Your task to perform on an android device: open app "PUBG MOBILE" (install if not already installed), go to login, and select forgot password Image 0: 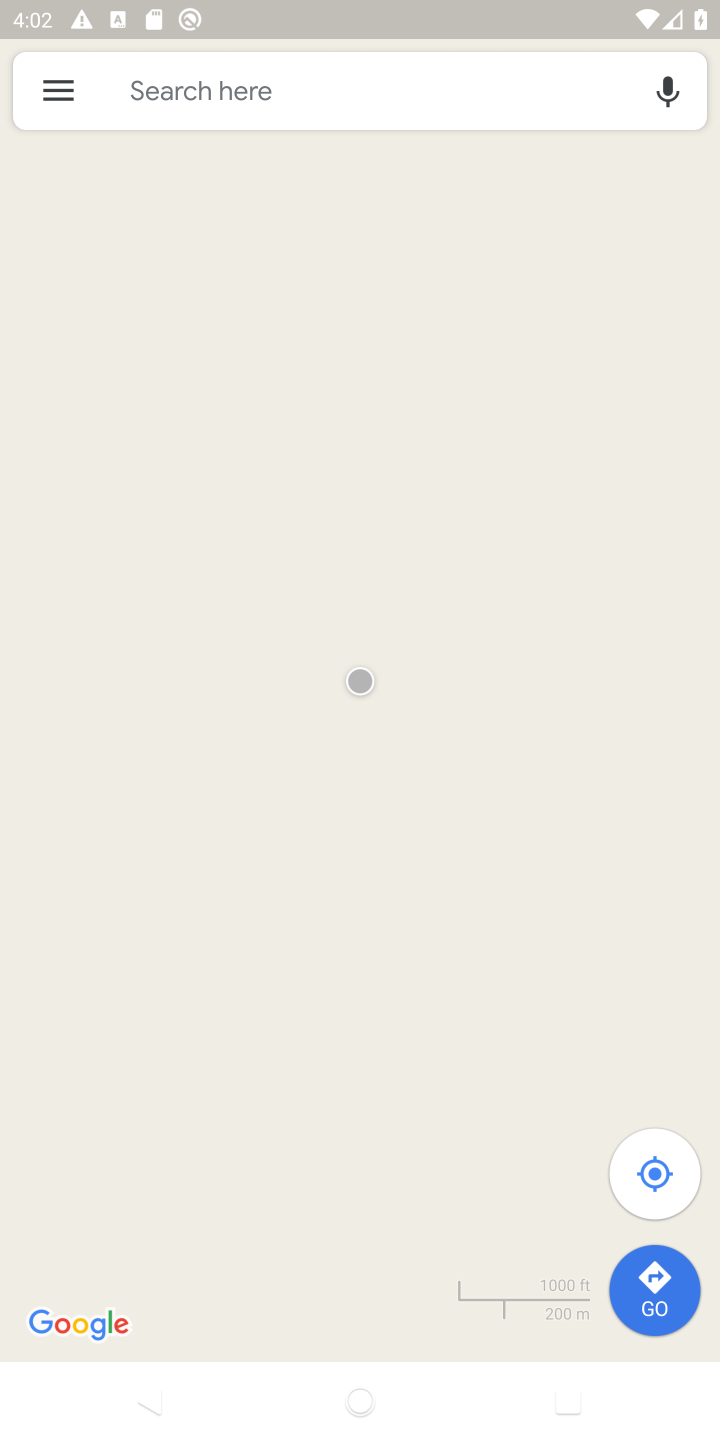
Step 0: press home button
Your task to perform on an android device: open app "PUBG MOBILE" (install if not already installed), go to login, and select forgot password Image 1: 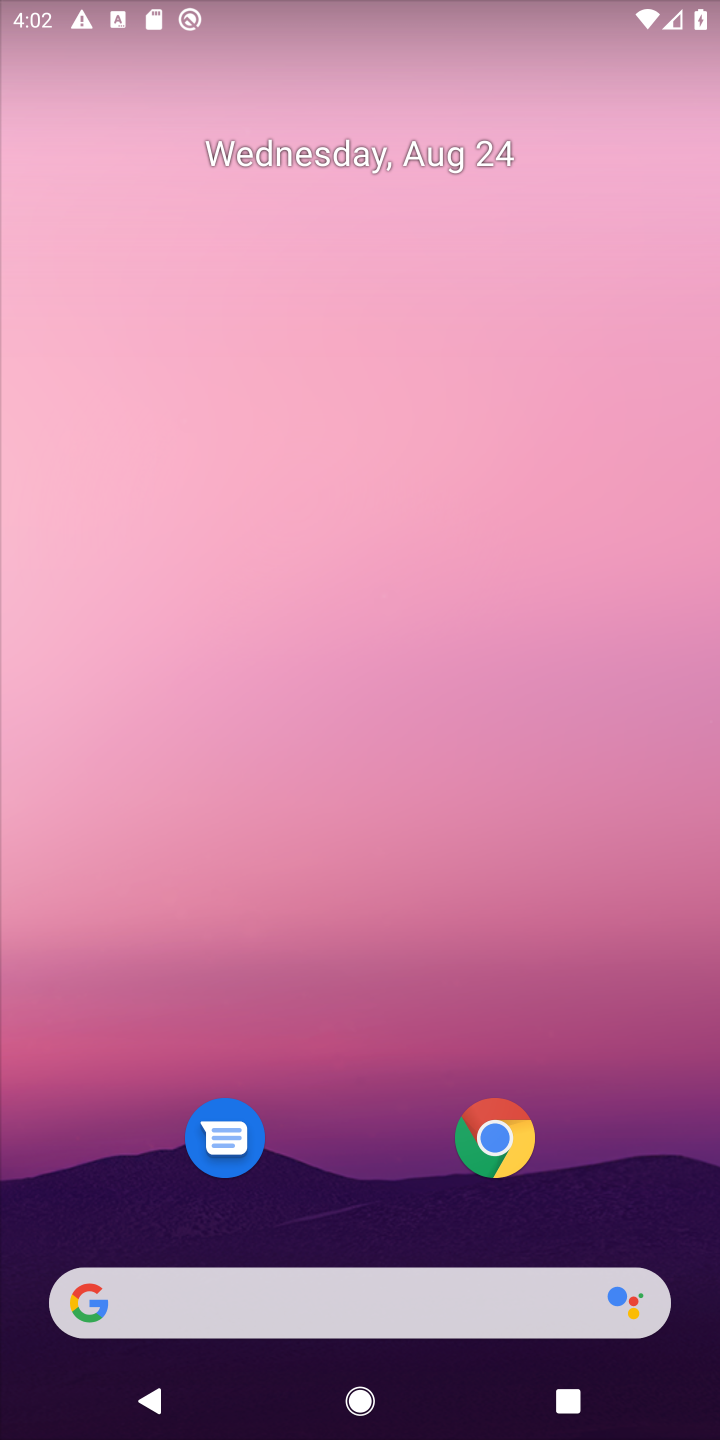
Step 1: drag from (382, 1247) to (315, 150)
Your task to perform on an android device: open app "PUBG MOBILE" (install if not already installed), go to login, and select forgot password Image 2: 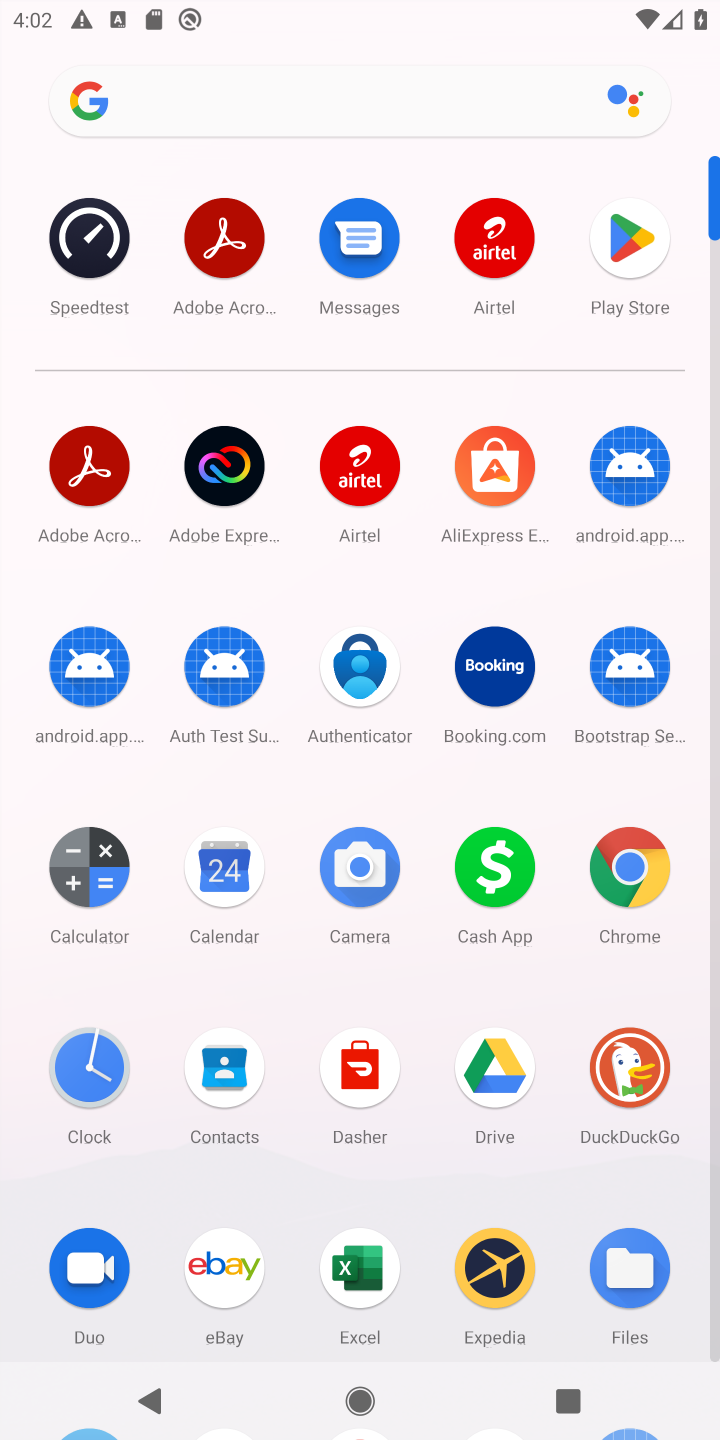
Step 2: click (614, 262)
Your task to perform on an android device: open app "PUBG MOBILE" (install if not already installed), go to login, and select forgot password Image 3: 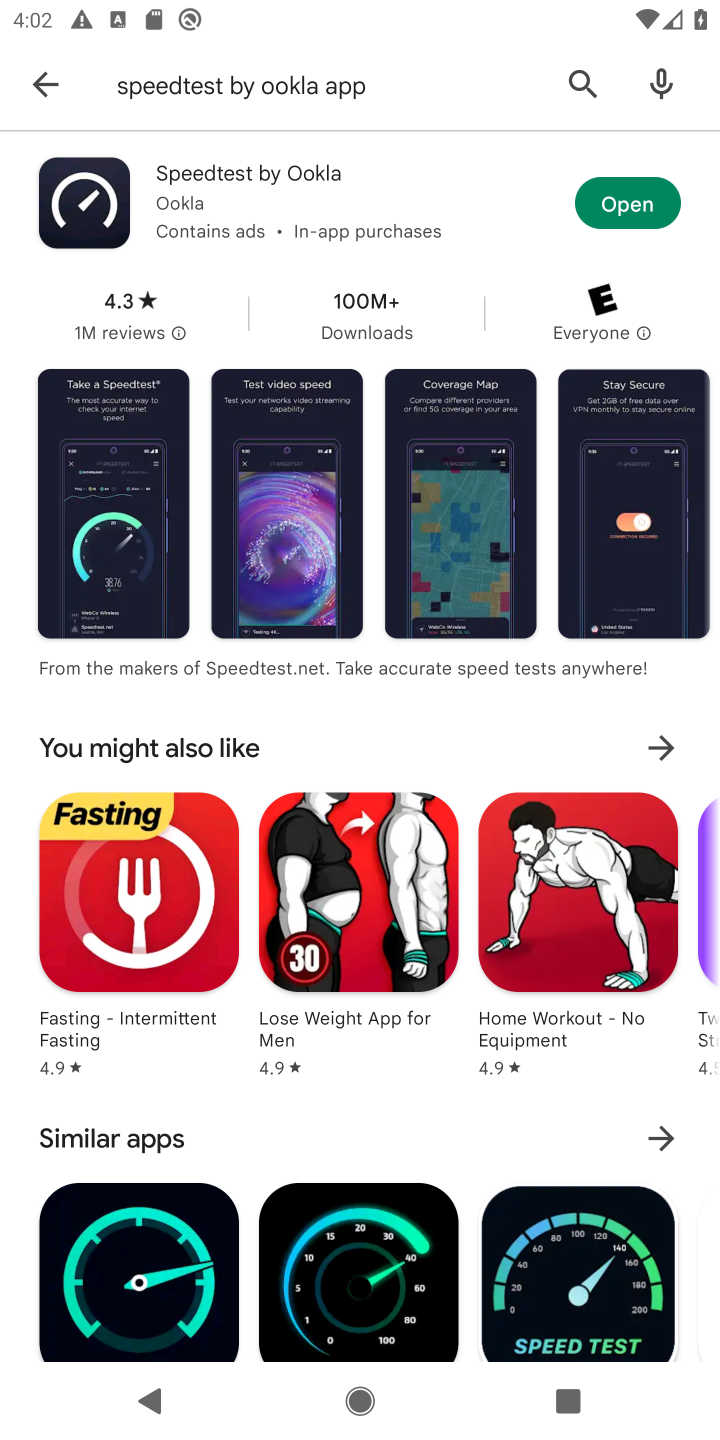
Step 3: click (577, 86)
Your task to perform on an android device: open app "PUBG MOBILE" (install if not already installed), go to login, and select forgot password Image 4: 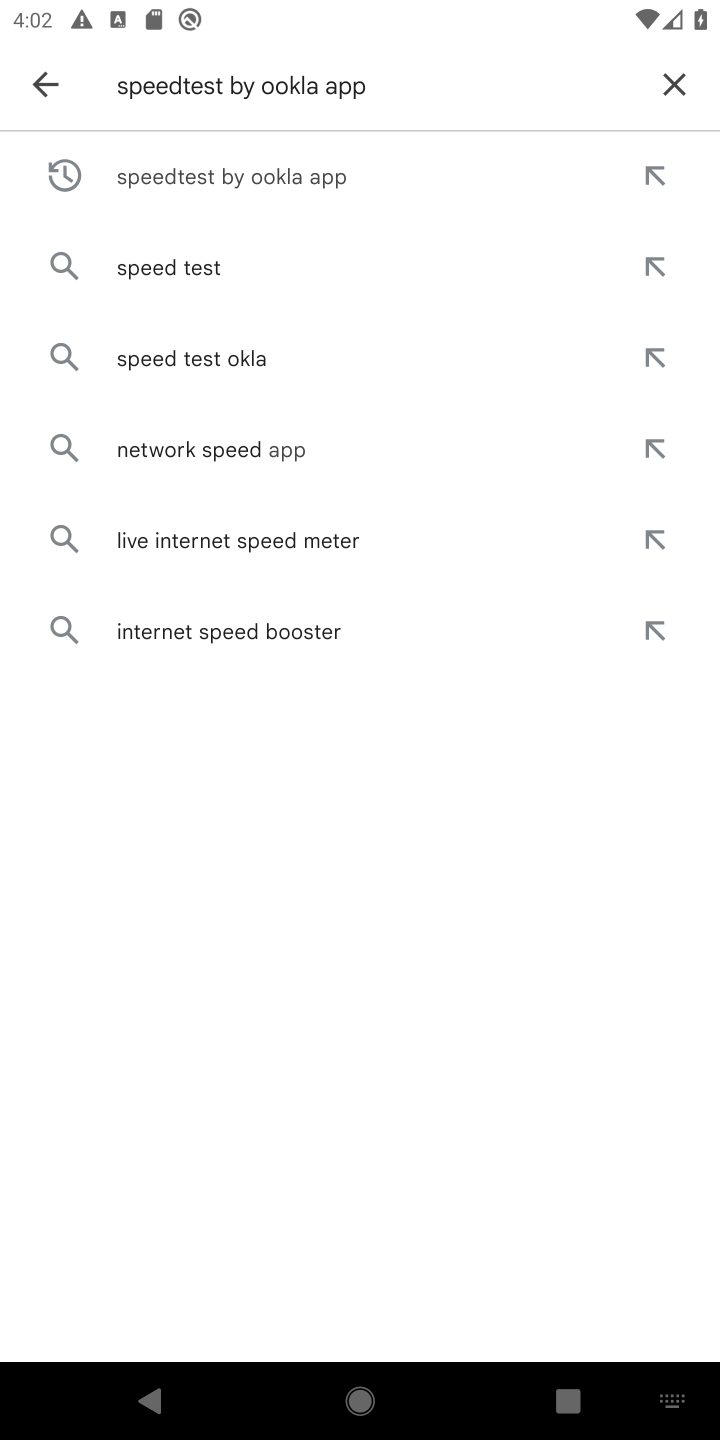
Step 4: click (680, 82)
Your task to perform on an android device: open app "PUBG MOBILE" (install if not already installed), go to login, and select forgot password Image 5: 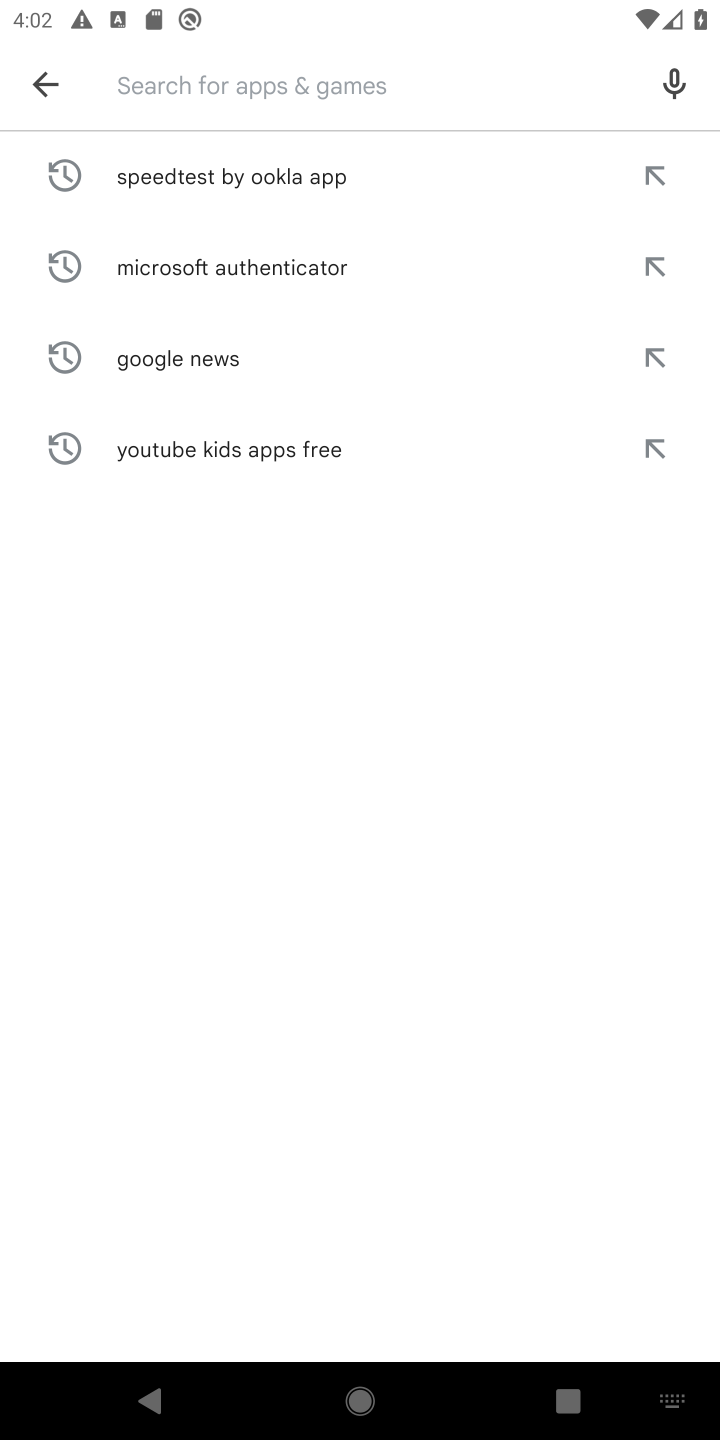
Step 5: type "PUBG MOBILE"
Your task to perform on an android device: open app "PUBG MOBILE" (install if not already installed), go to login, and select forgot password Image 6: 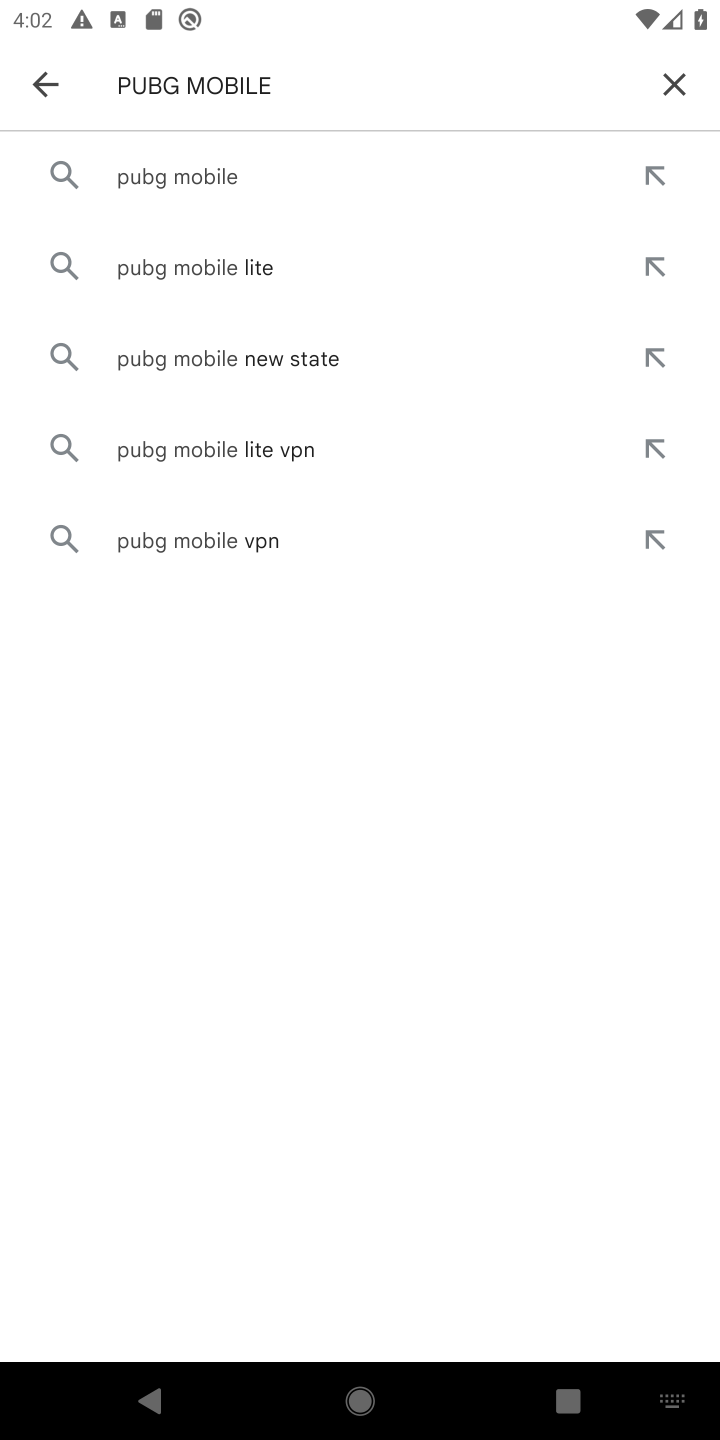
Step 6: click (229, 175)
Your task to perform on an android device: open app "PUBG MOBILE" (install if not already installed), go to login, and select forgot password Image 7: 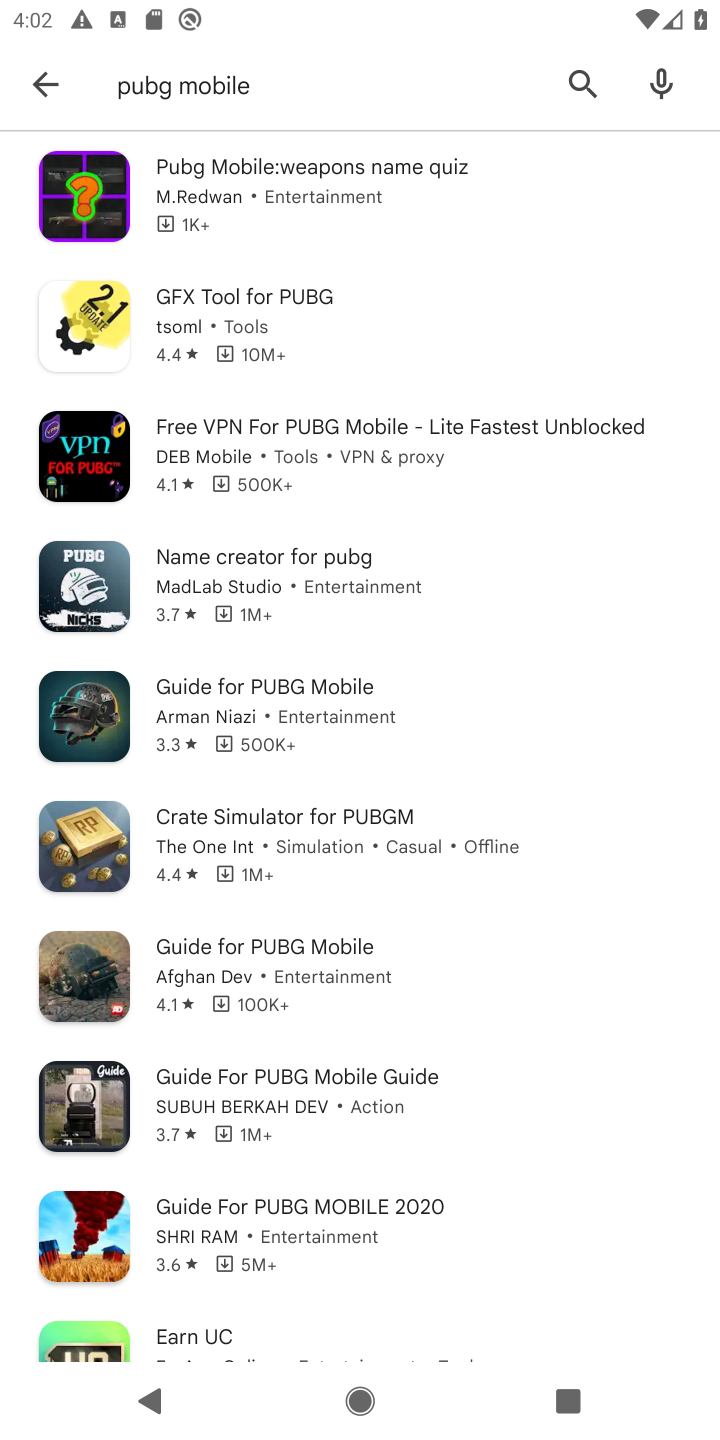
Step 7: click (227, 176)
Your task to perform on an android device: open app "PUBG MOBILE" (install if not already installed), go to login, and select forgot password Image 8: 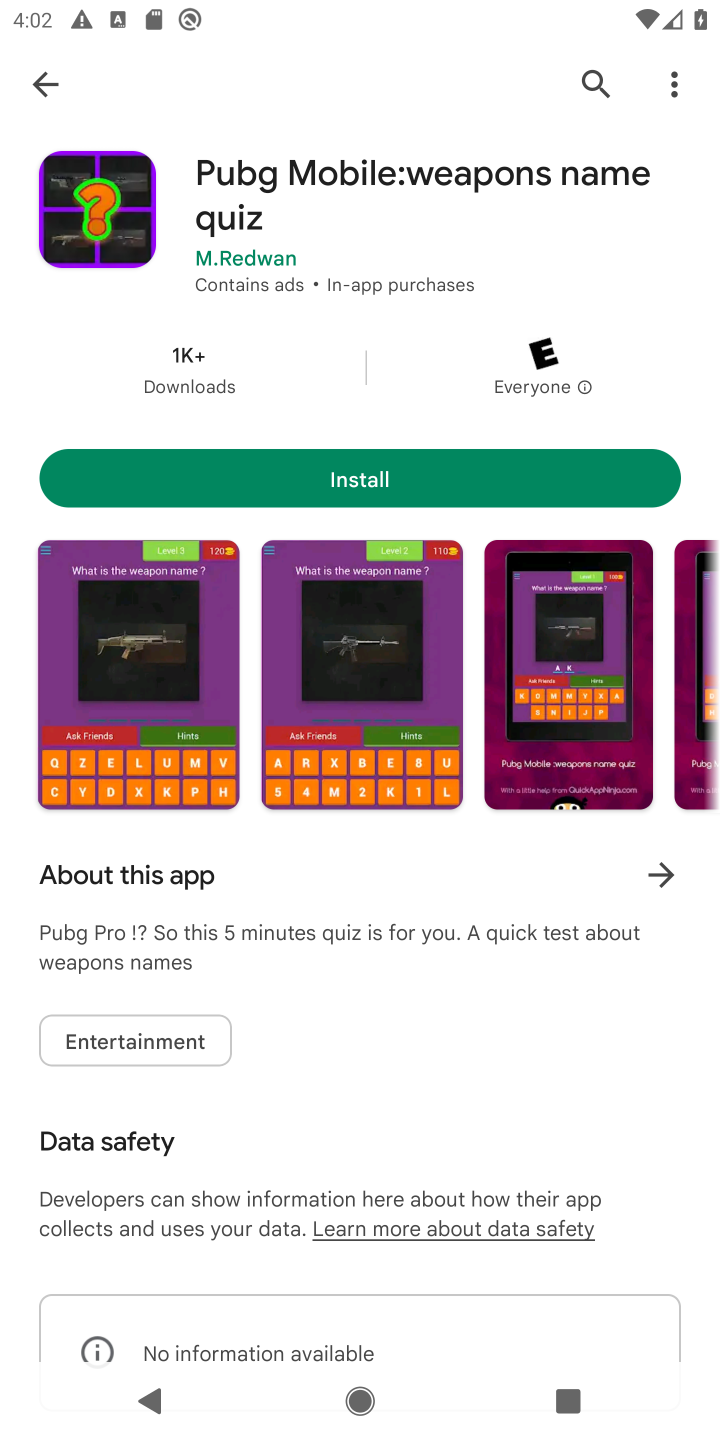
Step 8: click (392, 488)
Your task to perform on an android device: open app "PUBG MOBILE" (install if not already installed), go to login, and select forgot password Image 9: 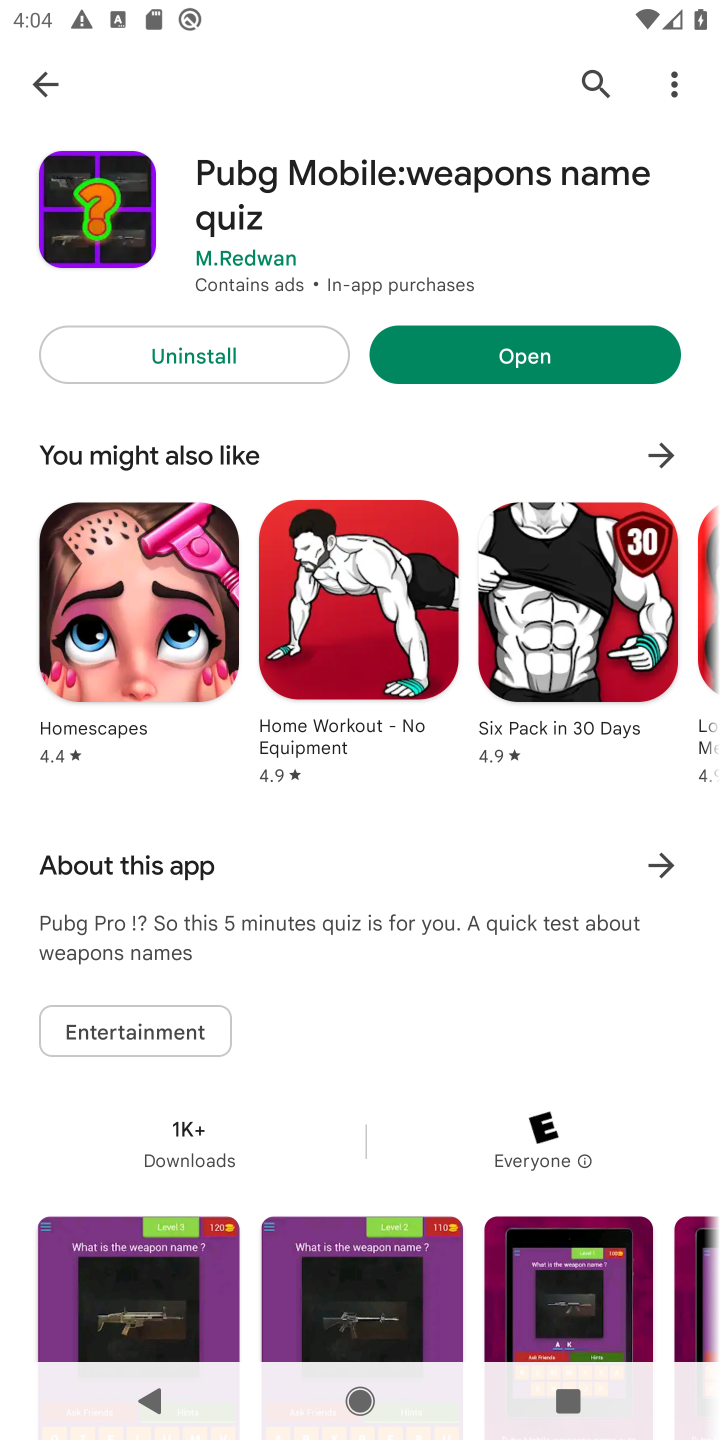
Step 9: click (459, 361)
Your task to perform on an android device: open app "PUBG MOBILE" (install if not already installed), go to login, and select forgot password Image 10: 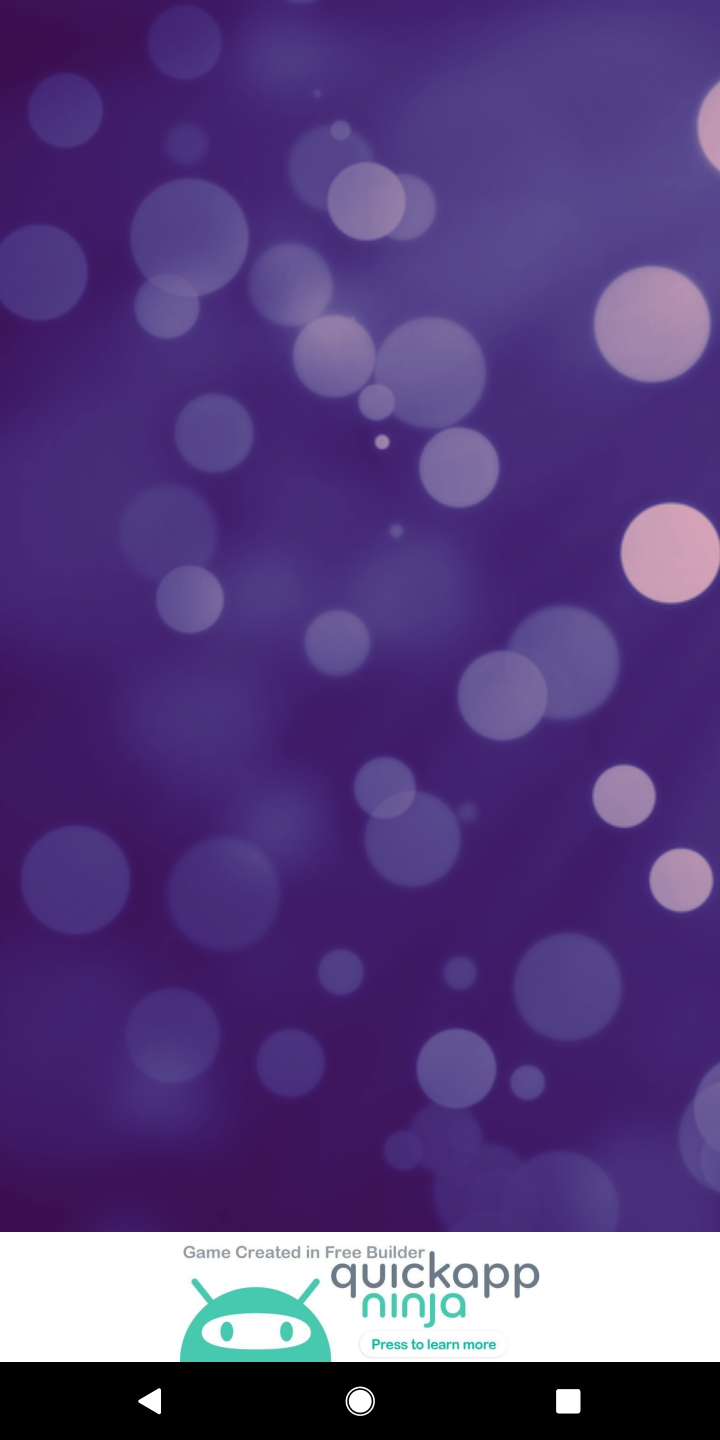
Step 10: task complete